Your task to perform on an android device: Open maps Image 0: 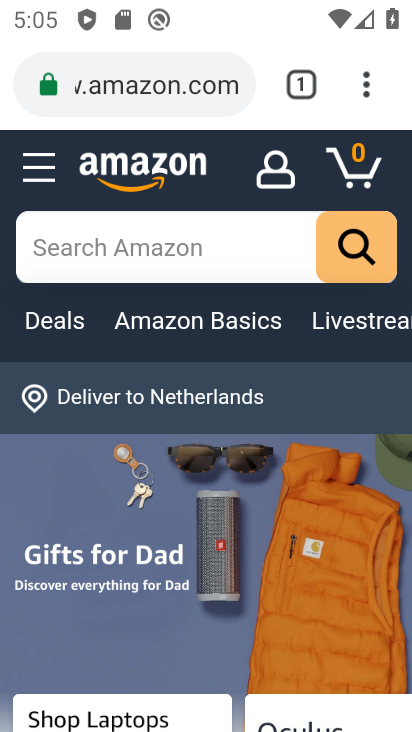
Step 0: press home button
Your task to perform on an android device: Open maps Image 1: 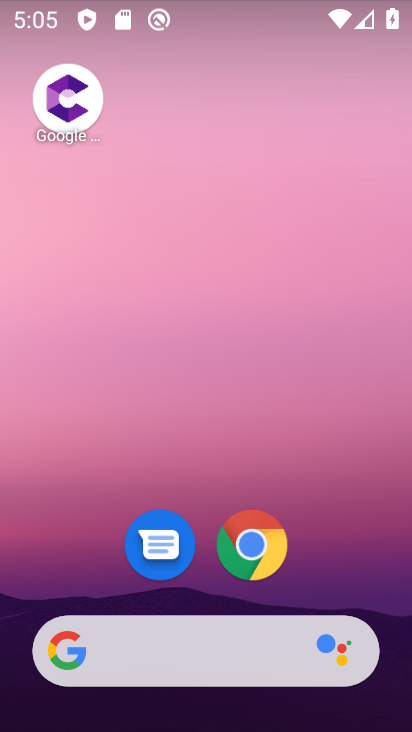
Step 1: drag from (225, 611) to (232, 244)
Your task to perform on an android device: Open maps Image 2: 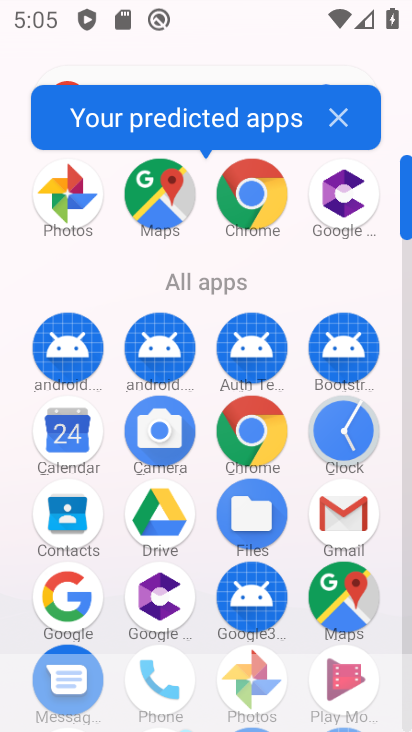
Step 2: click (166, 211)
Your task to perform on an android device: Open maps Image 3: 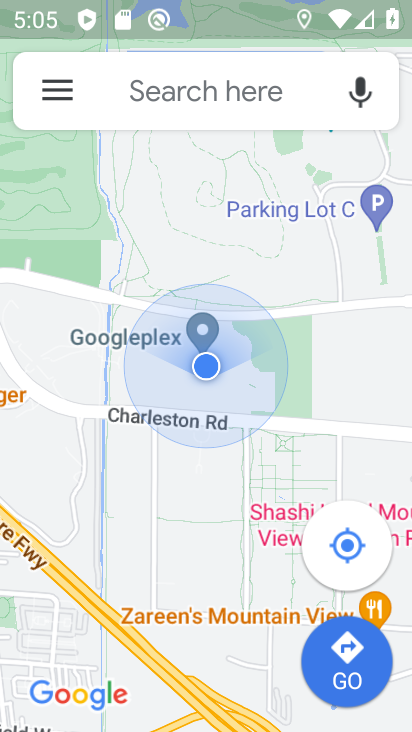
Step 3: task complete